Your task to perform on an android device: Open the calendar and show me this week's events? Image 0: 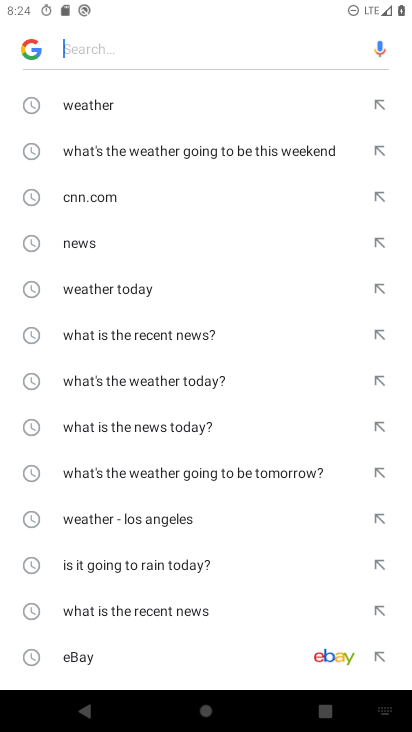
Step 0: press back button
Your task to perform on an android device: Open the calendar and show me this week's events? Image 1: 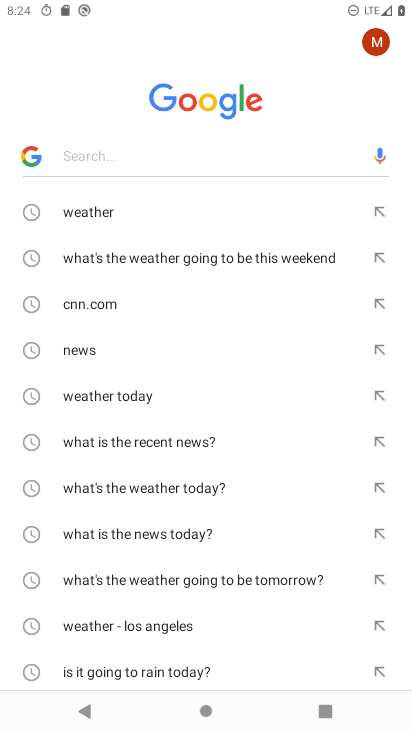
Step 1: press back button
Your task to perform on an android device: Open the calendar and show me this week's events? Image 2: 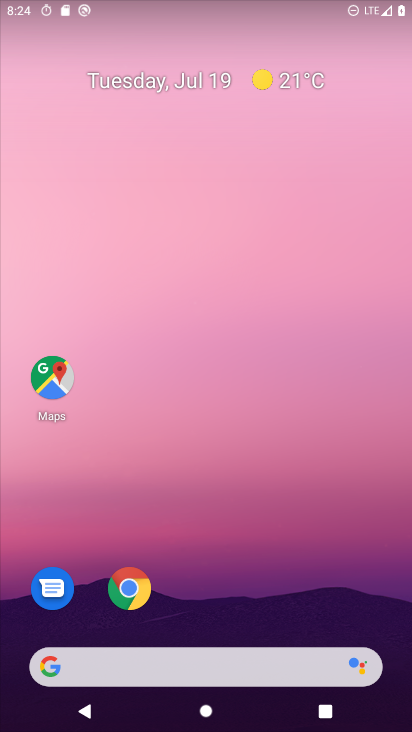
Step 2: drag from (264, 496) to (315, 127)
Your task to perform on an android device: Open the calendar and show me this week's events? Image 3: 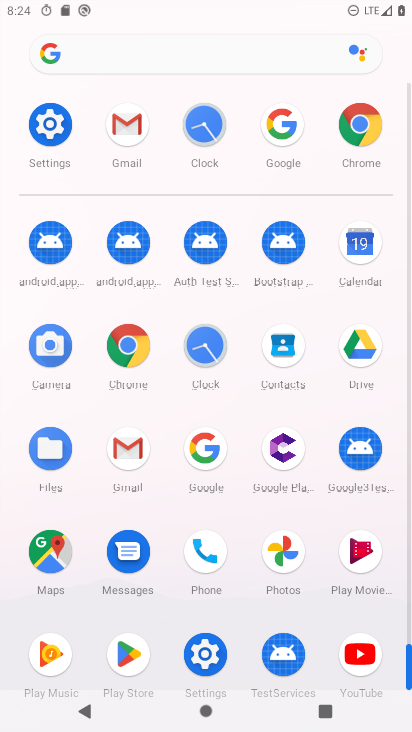
Step 3: click (362, 255)
Your task to perform on an android device: Open the calendar and show me this week's events? Image 4: 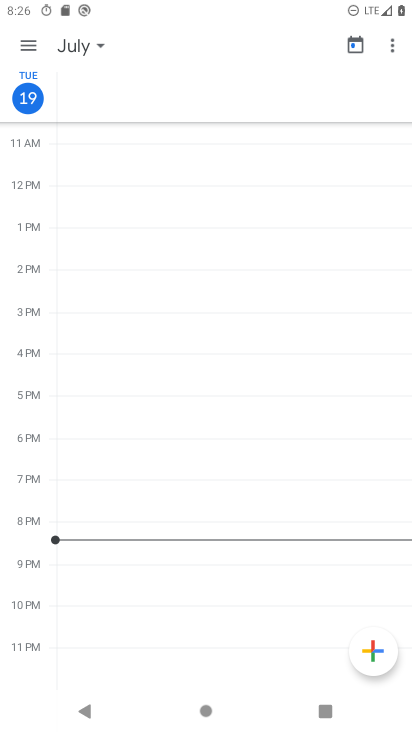
Step 4: click (101, 46)
Your task to perform on an android device: Open the calendar and show me this week's events? Image 5: 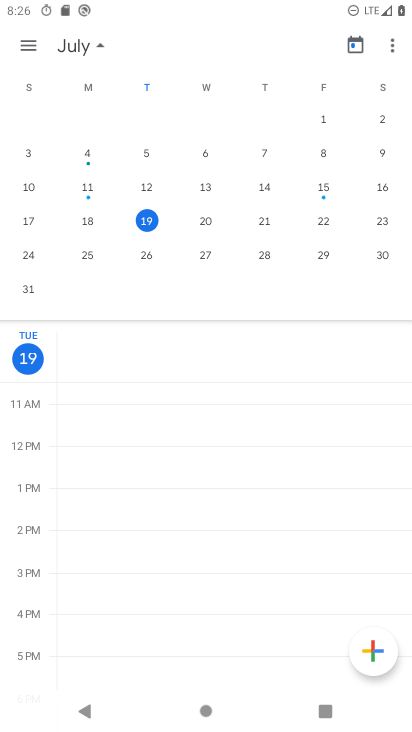
Step 5: click (100, 44)
Your task to perform on an android device: Open the calendar and show me this week's events? Image 6: 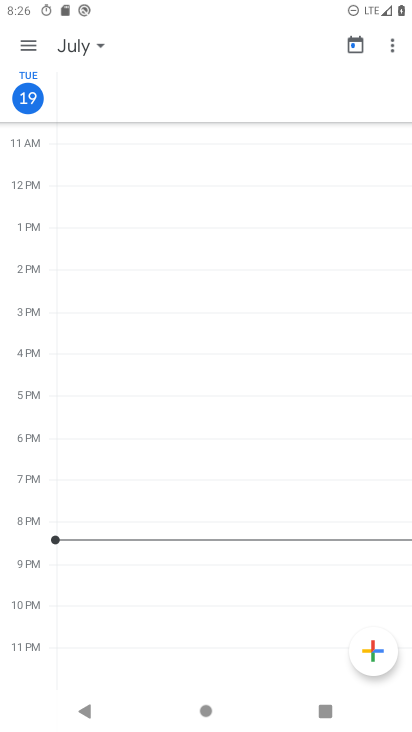
Step 6: click (11, 48)
Your task to perform on an android device: Open the calendar and show me this week's events? Image 7: 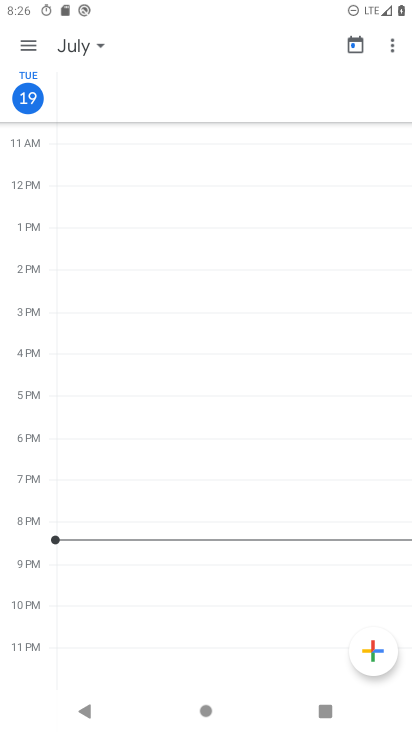
Step 7: click (23, 47)
Your task to perform on an android device: Open the calendar and show me this week's events? Image 8: 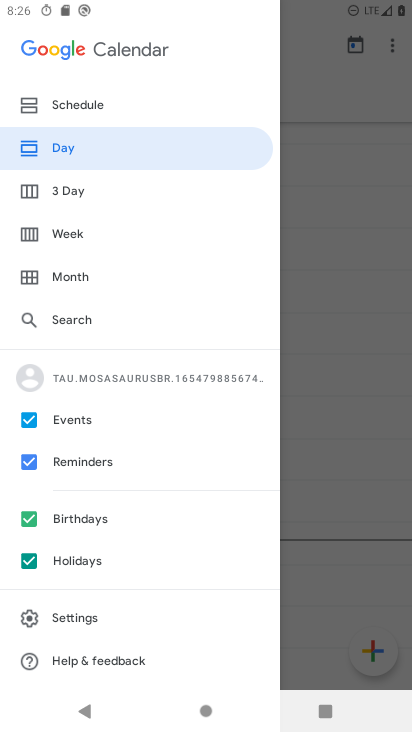
Step 8: click (87, 236)
Your task to perform on an android device: Open the calendar and show me this week's events? Image 9: 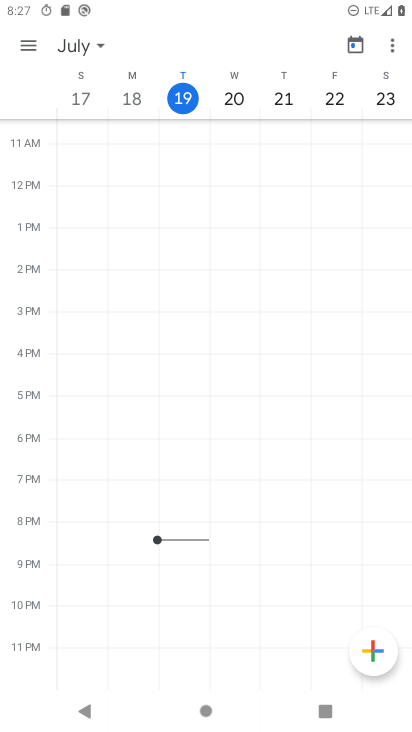
Step 9: task complete